Your task to perform on an android device: Check the weather Image 0: 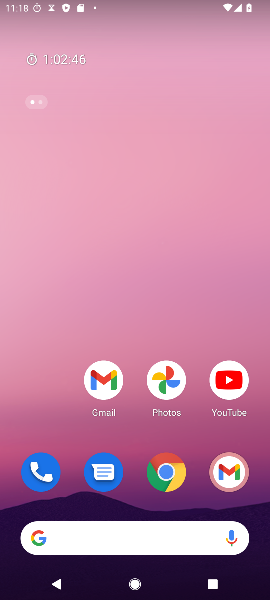
Step 0: click (185, 469)
Your task to perform on an android device: Check the weather Image 1: 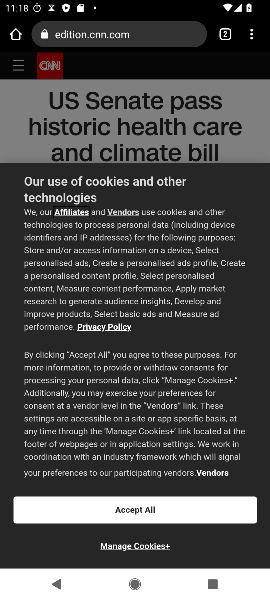
Step 1: click (131, 26)
Your task to perform on an android device: Check the weather Image 2: 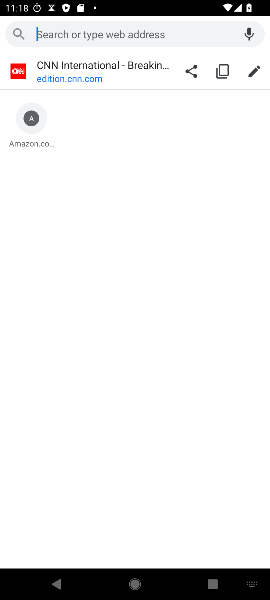
Step 2: type "Check the weather"
Your task to perform on an android device: Check the weather Image 3: 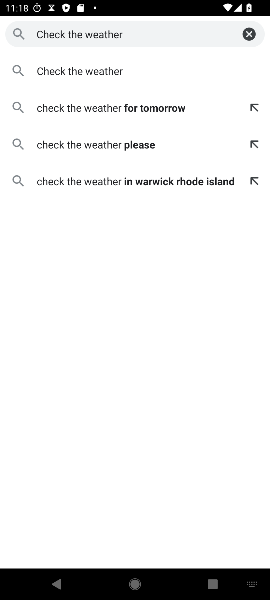
Step 3: click (152, 71)
Your task to perform on an android device: Check the weather Image 4: 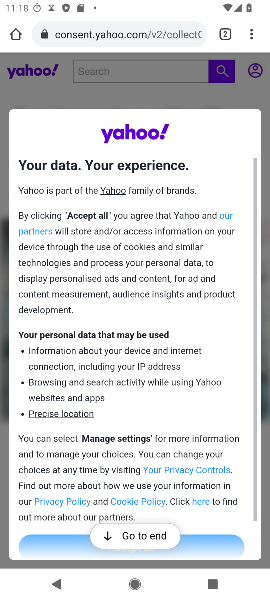
Step 4: drag from (238, 526) to (198, 306)
Your task to perform on an android device: Check the weather Image 5: 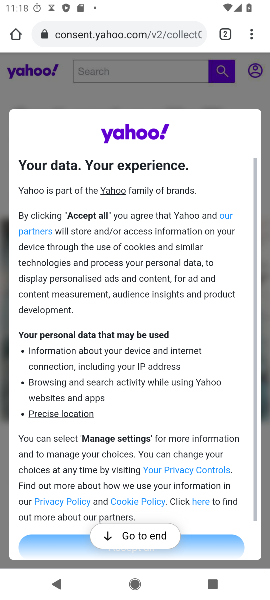
Step 5: drag from (198, 306) to (195, 158)
Your task to perform on an android device: Check the weather Image 6: 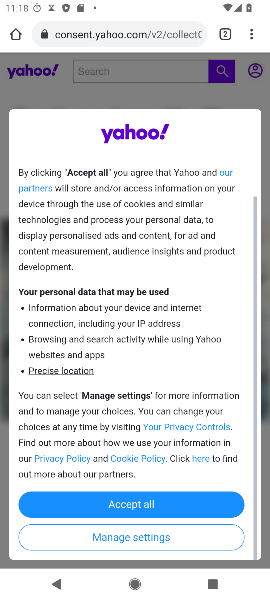
Step 6: click (140, 503)
Your task to perform on an android device: Check the weather Image 7: 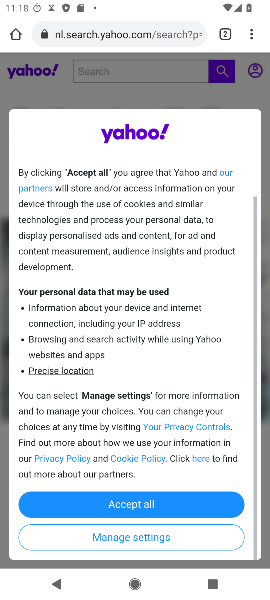
Step 7: click (140, 503)
Your task to perform on an android device: Check the weather Image 8: 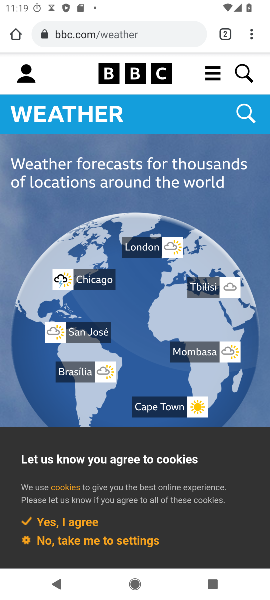
Step 8: task complete